Your task to perform on an android device: Go to Android settings Image 0: 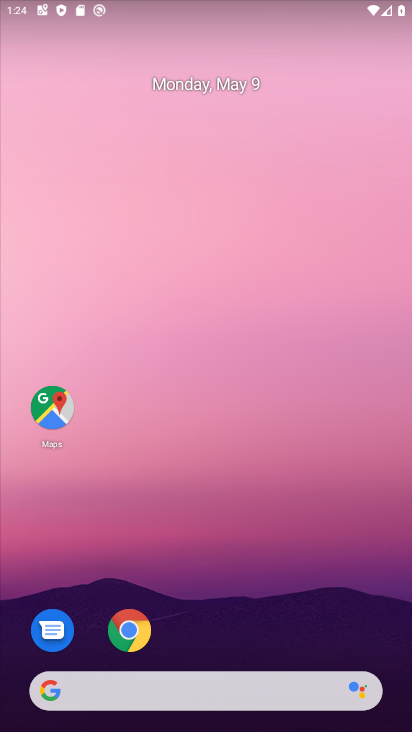
Step 0: drag from (264, 714) to (368, 344)
Your task to perform on an android device: Go to Android settings Image 1: 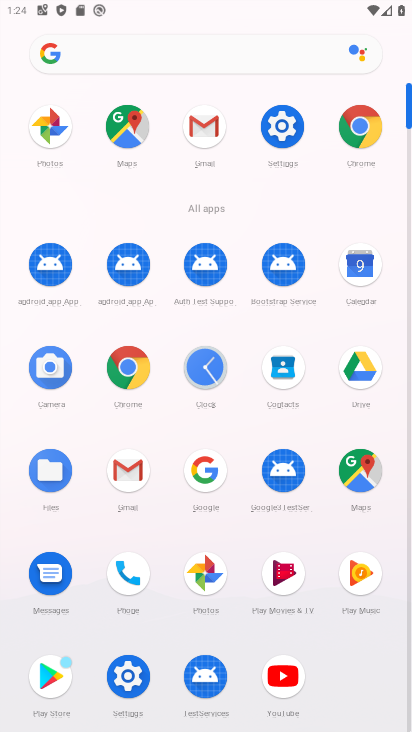
Step 1: click (281, 140)
Your task to perform on an android device: Go to Android settings Image 2: 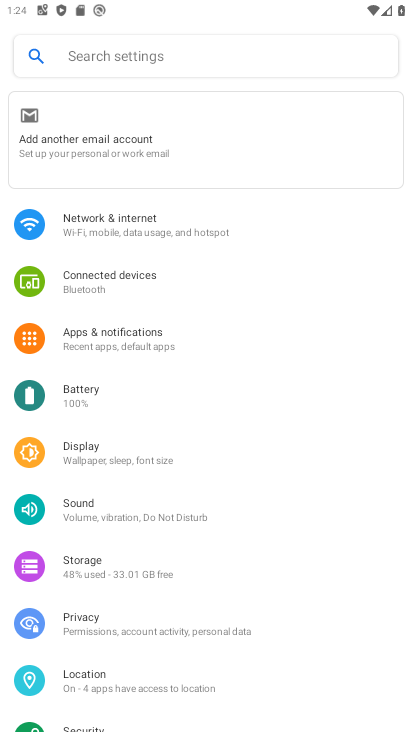
Step 2: click (177, 64)
Your task to perform on an android device: Go to Android settings Image 3: 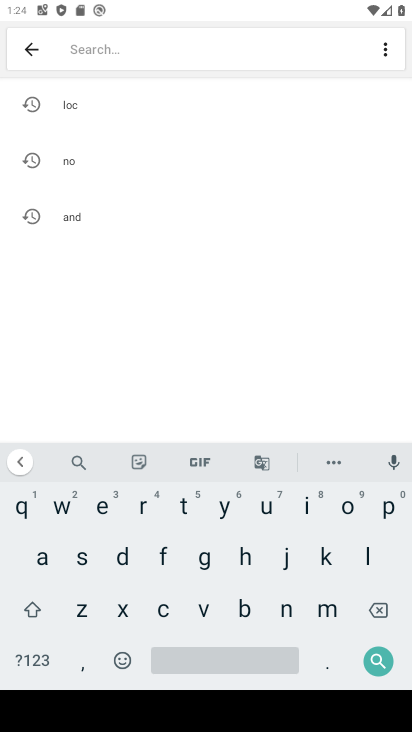
Step 3: click (42, 555)
Your task to perform on an android device: Go to Android settings Image 4: 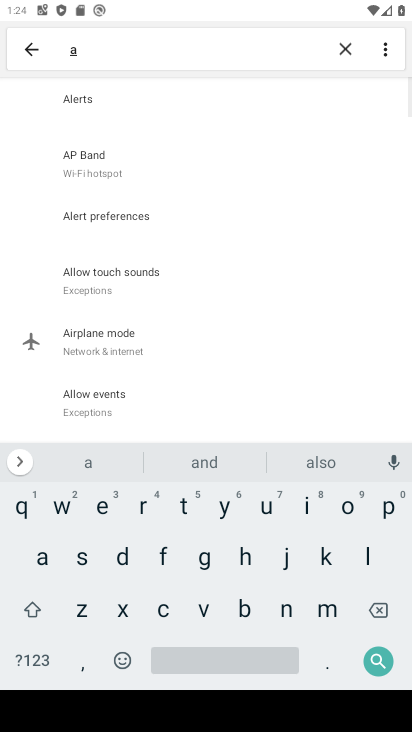
Step 4: click (285, 608)
Your task to perform on an android device: Go to Android settings Image 5: 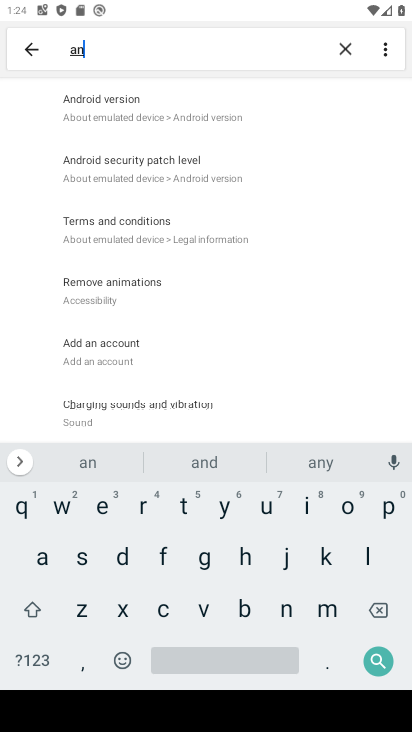
Step 5: click (160, 132)
Your task to perform on an android device: Go to Android settings Image 6: 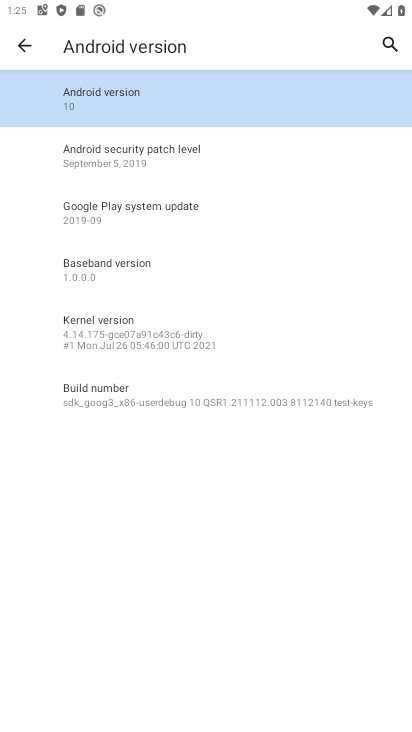
Step 6: task complete